Your task to perform on an android device: search for starred emails in the gmail app Image 0: 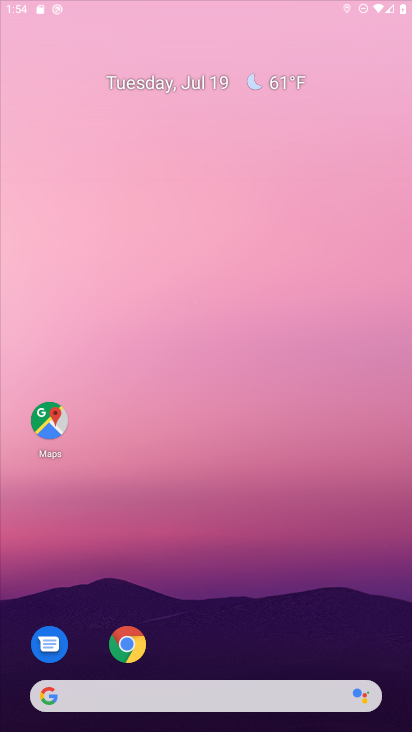
Step 0: drag from (197, 675) to (145, 117)
Your task to perform on an android device: search for starred emails in the gmail app Image 1: 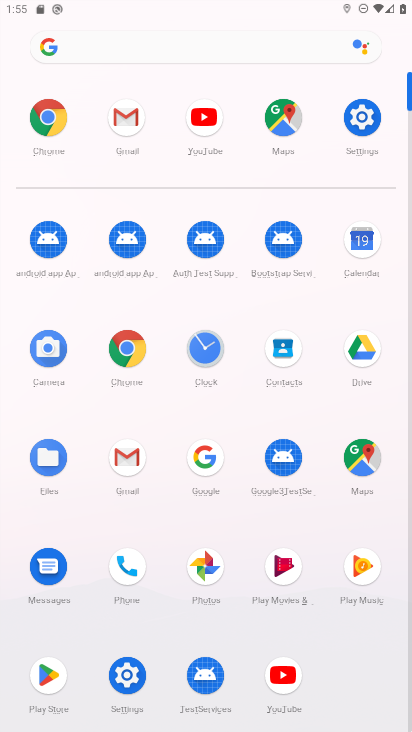
Step 1: click (143, 463)
Your task to perform on an android device: search for starred emails in the gmail app Image 2: 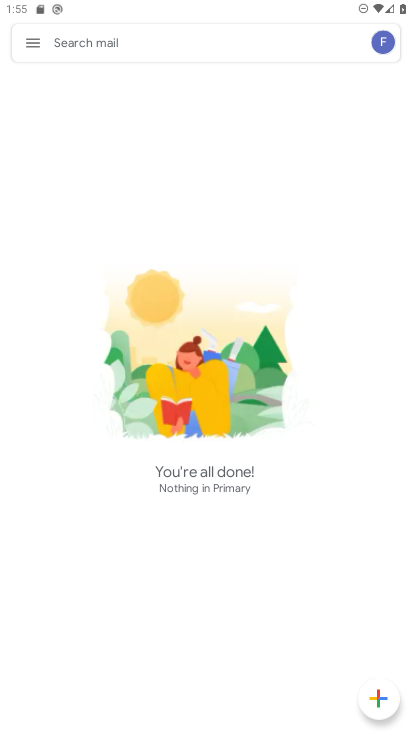
Step 2: click (29, 38)
Your task to perform on an android device: search for starred emails in the gmail app Image 3: 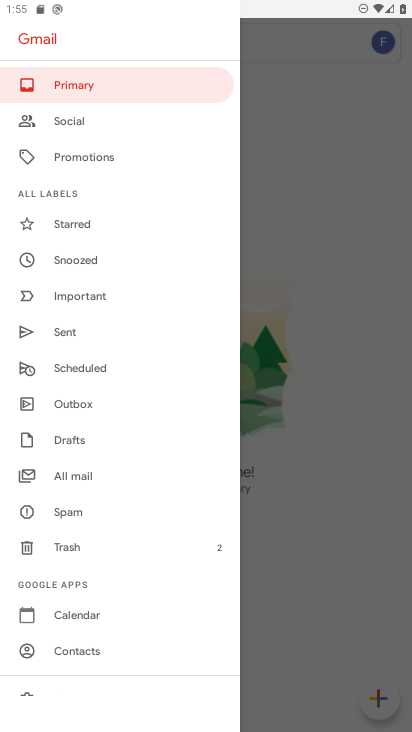
Step 3: click (71, 234)
Your task to perform on an android device: search for starred emails in the gmail app Image 4: 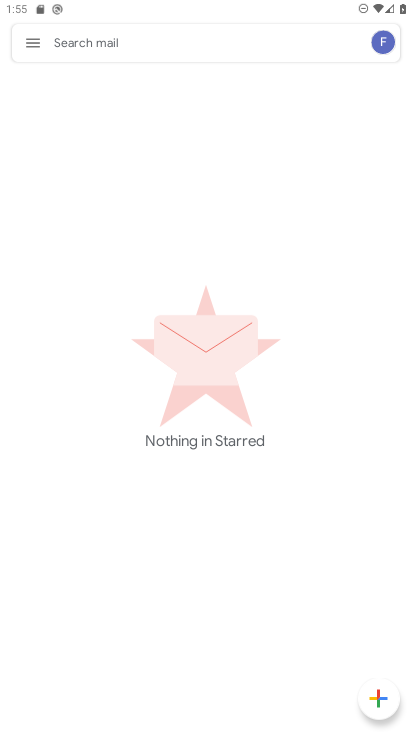
Step 4: task complete